Your task to perform on an android device: Go to sound settings Image 0: 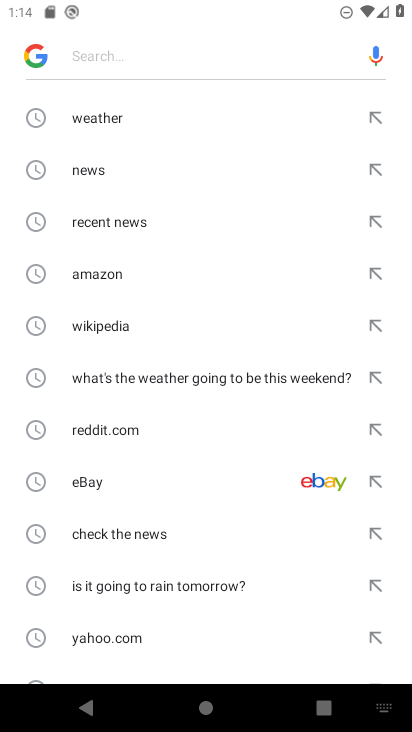
Step 0: press home button
Your task to perform on an android device: Go to sound settings Image 1: 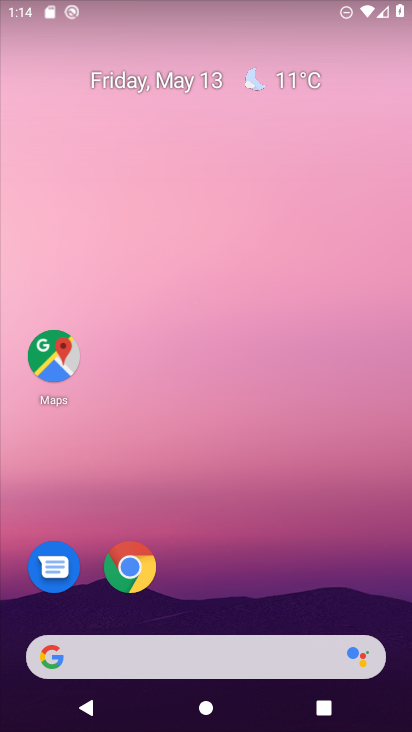
Step 1: drag from (214, 628) to (231, 26)
Your task to perform on an android device: Go to sound settings Image 2: 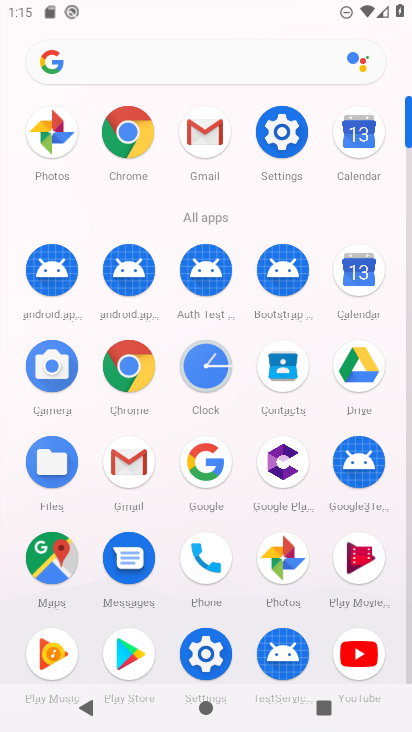
Step 2: click (206, 650)
Your task to perform on an android device: Go to sound settings Image 3: 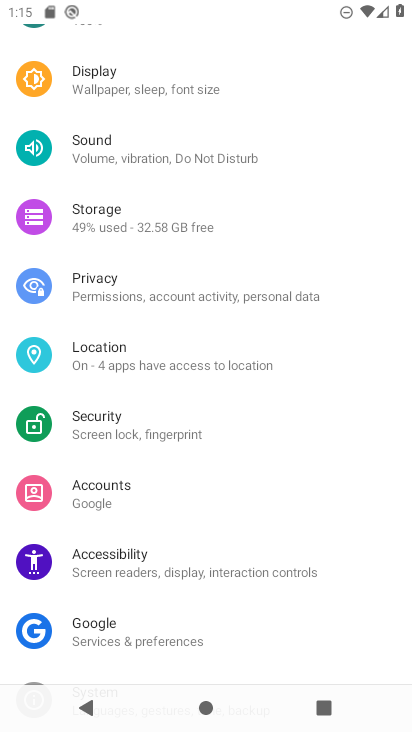
Step 3: click (124, 141)
Your task to perform on an android device: Go to sound settings Image 4: 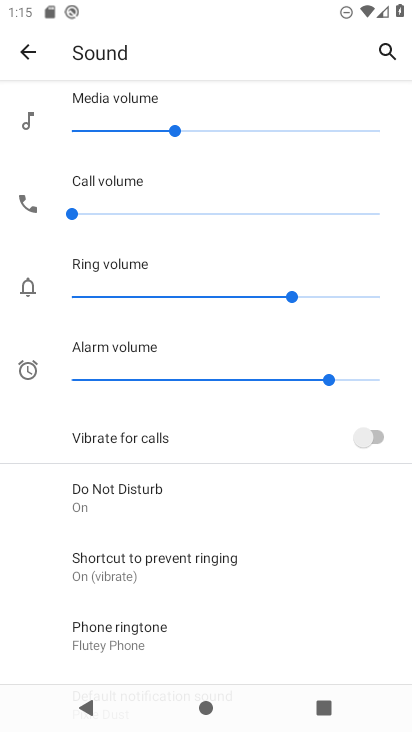
Step 4: task complete